Your task to perform on an android device: turn on notifications settings in the gmail app Image 0: 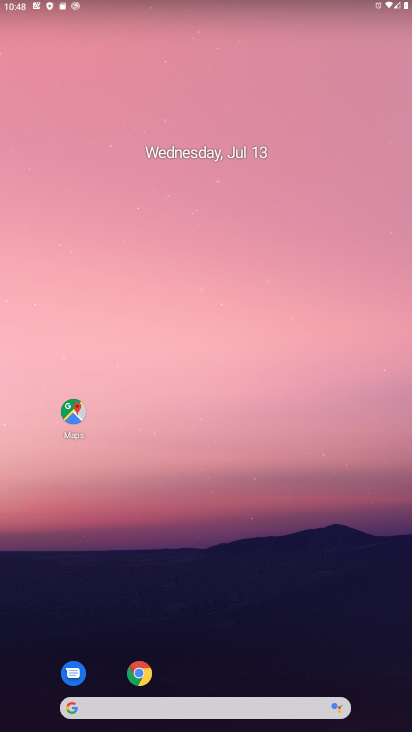
Step 0: drag from (147, 176) to (143, 142)
Your task to perform on an android device: turn on notifications settings in the gmail app Image 1: 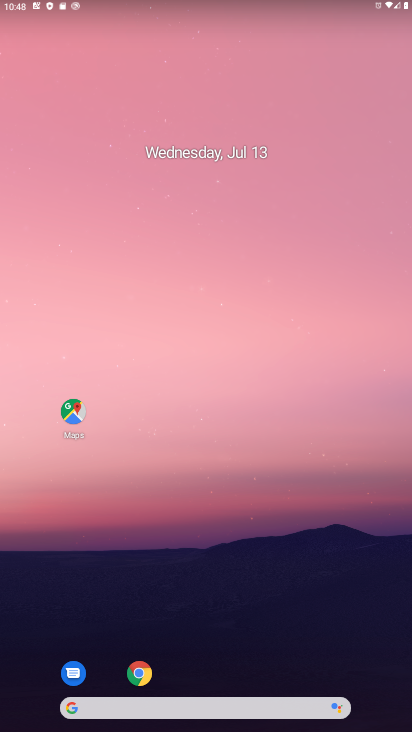
Step 1: drag from (267, 460) to (245, 65)
Your task to perform on an android device: turn on notifications settings in the gmail app Image 2: 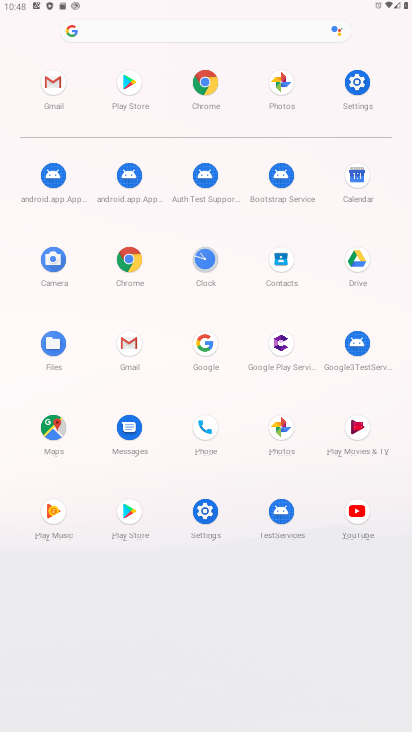
Step 2: click (60, 82)
Your task to perform on an android device: turn on notifications settings in the gmail app Image 3: 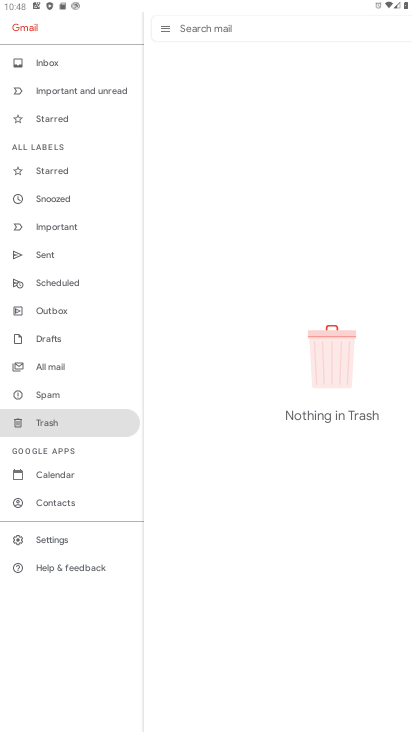
Step 3: click (49, 542)
Your task to perform on an android device: turn on notifications settings in the gmail app Image 4: 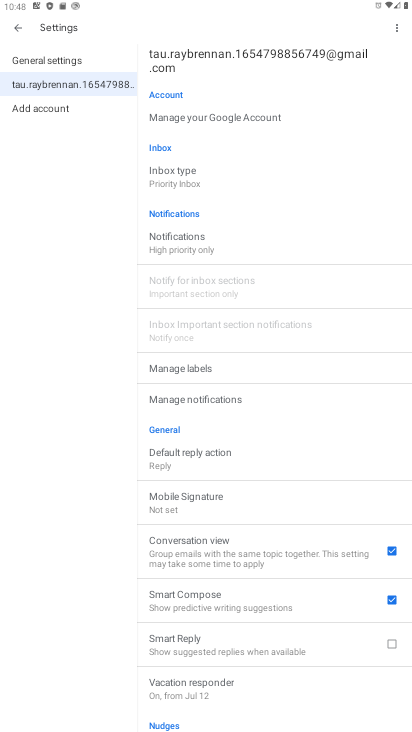
Step 4: click (208, 253)
Your task to perform on an android device: turn on notifications settings in the gmail app Image 5: 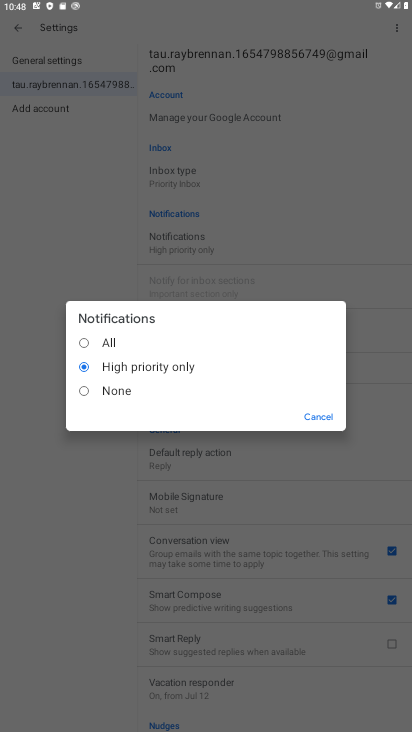
Step 5: click (123, 333)
Your task to perform on an android device: turn on notifications settings in the gmail app Image 6: 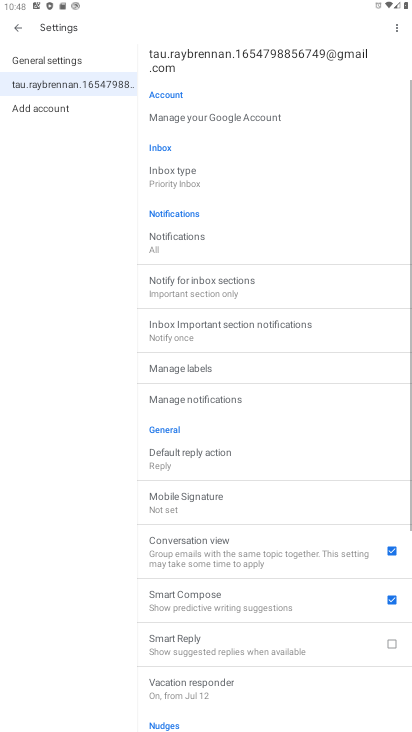
Step 6: task complete